Your task to perform on an android device: Go to Android settings Image 0: 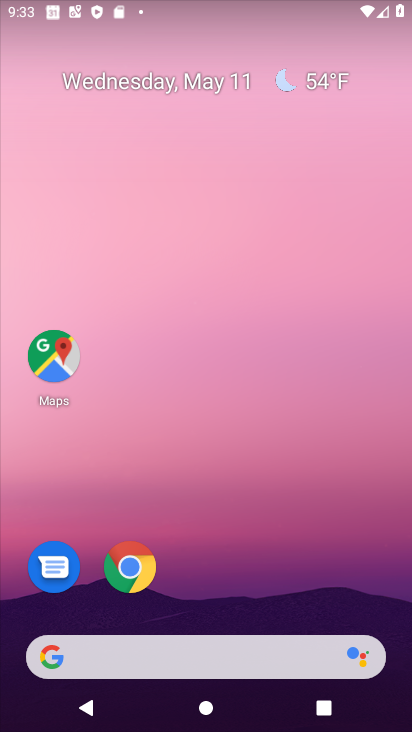
Step 0: drag from (256, 602) to (192, 10)
Your task to perform on an android device: Go to Android settings Image 1: 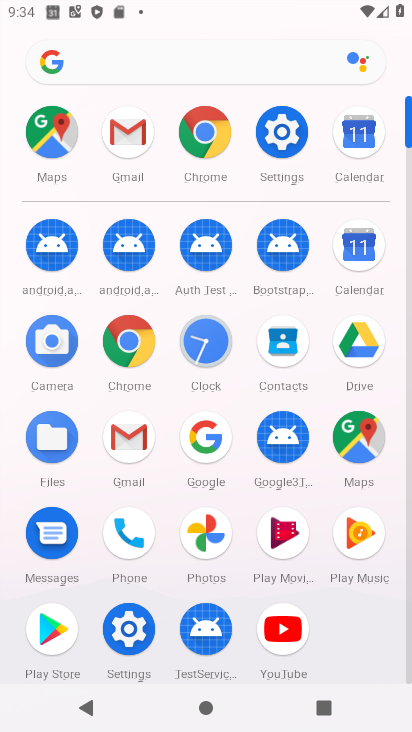
Step 1: click (274, 173)
Your task to perform on an android device: Go to Android settings Image 2: 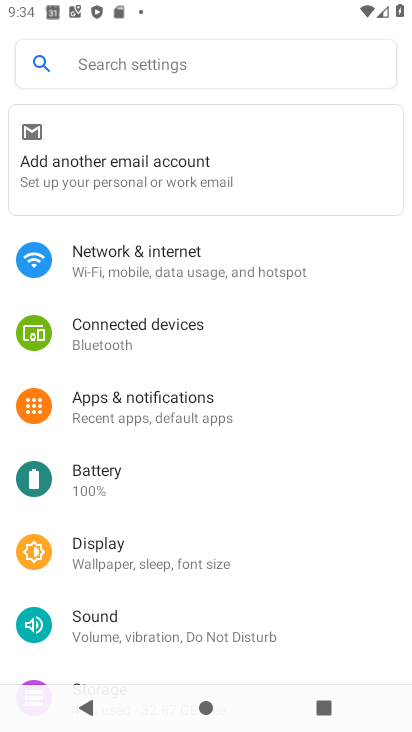
Step 2: drag from (208, 612) to (220, 183)
Your task to perform on an android device: Go to Android settings Image 3: 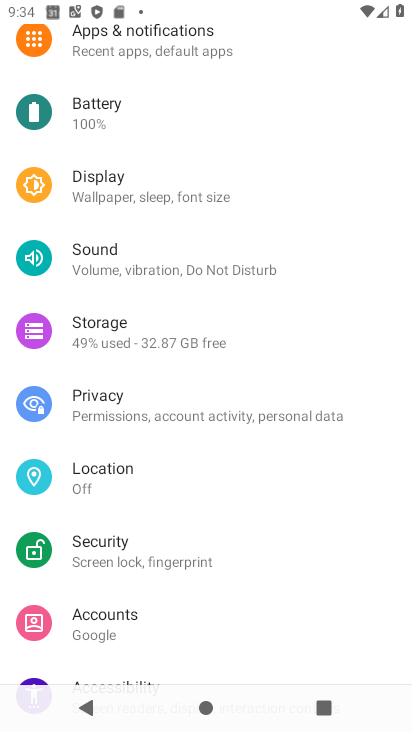
Step 3: drag from (171, 431) to (211, 173)
Your task to perform on an android device: Go to Android settings Image 4: 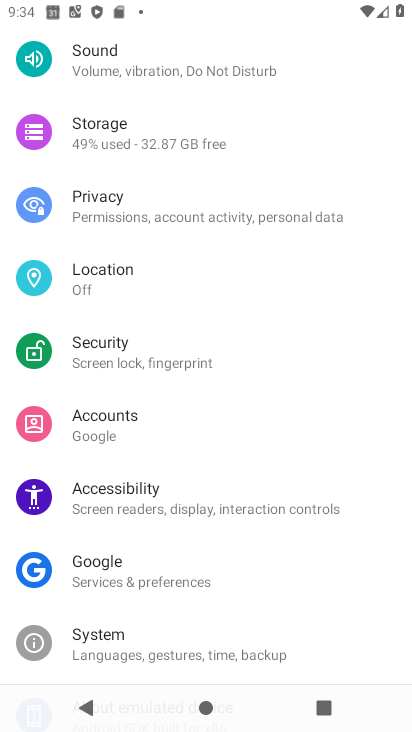
Step 4: drag from (164, 424) to (217, 18)
Your task to perform on an android device: Go to Android settings Image 5: 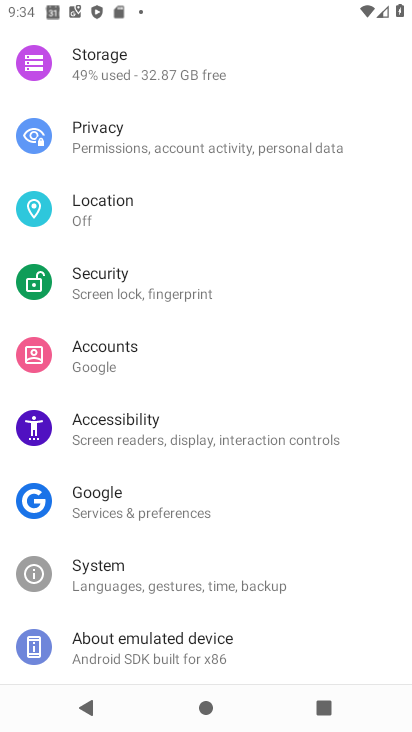
Step 5: click (170, 644)
Your task to perform on an android device: Go to Android settings Image 6: 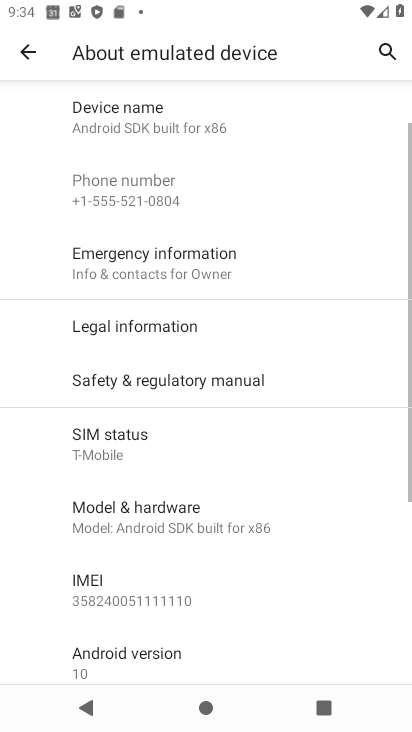
Step 6: drag from (145, 549) to (210, 96)
Your task to perform on an android device: Go to Android settings Image 7: 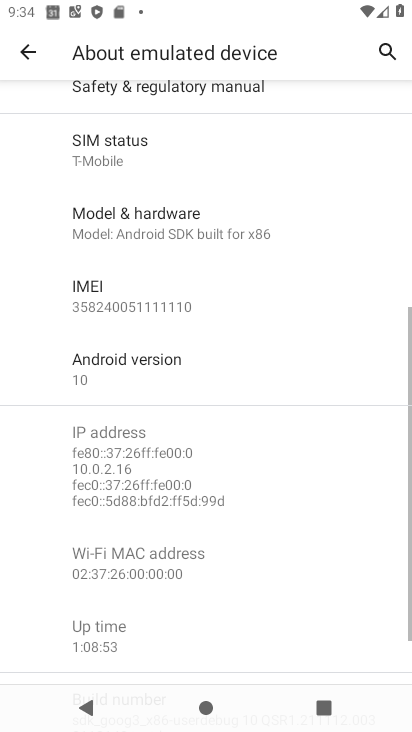
Step 7: click (136, 372)
Your task to perform on an android device: Go to Android settings Image 8: 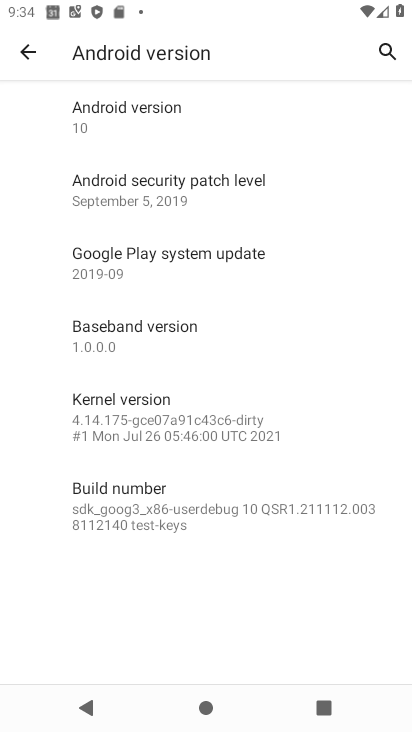
Step 8: task complete